Your task to perform on an android device: toggle improve location accuracy Image 0: 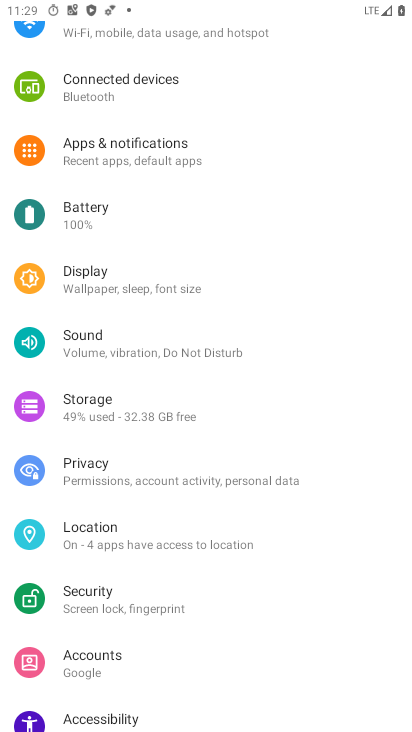
Step 0: click (100, 523)
Your task to perform on an android device: toggle improve location accuracy Image 1: 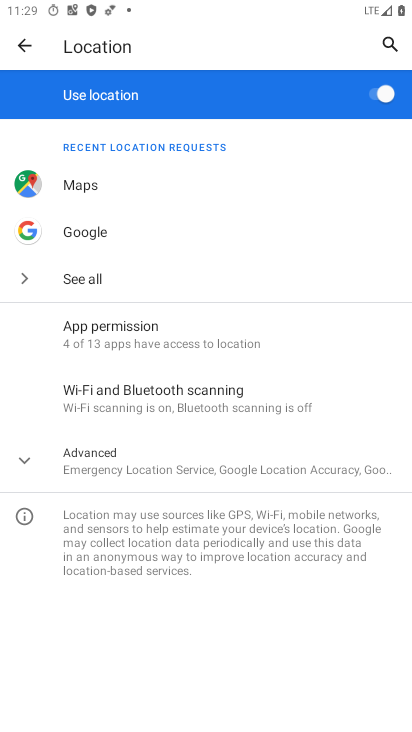
Step 1: click (206, 469)
Your task to perform on an android device: toggle improve location accuracy Image 2: 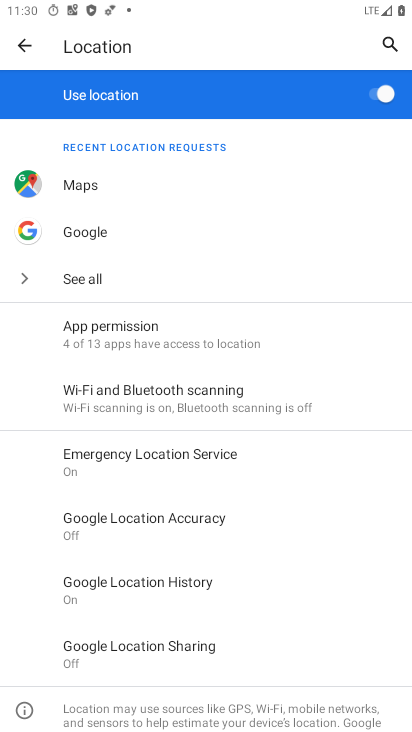
Step 2: click (181, 520)
Your task to perform on an android device: toggle improve location accuracy Image 3: 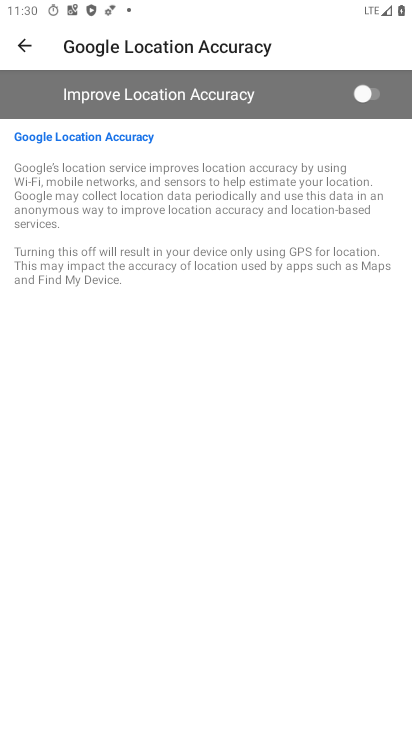
Step 3: click (358, 93)
Your task to perform on an android device: toggle improve location accuracy Image 4: 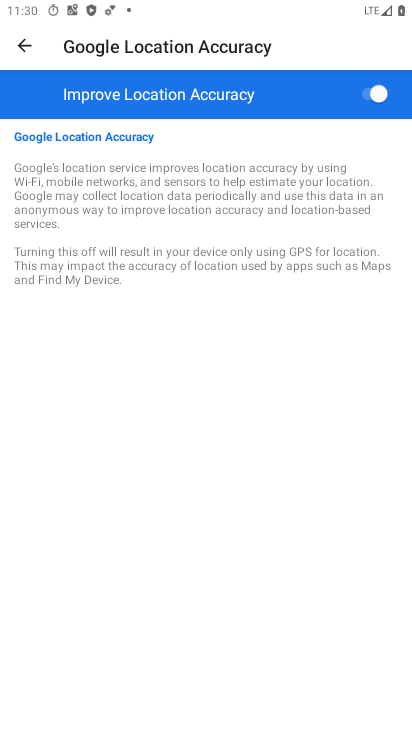
Step 4: task complete